Your task to perform on an android device: What's the weather? Image 0: 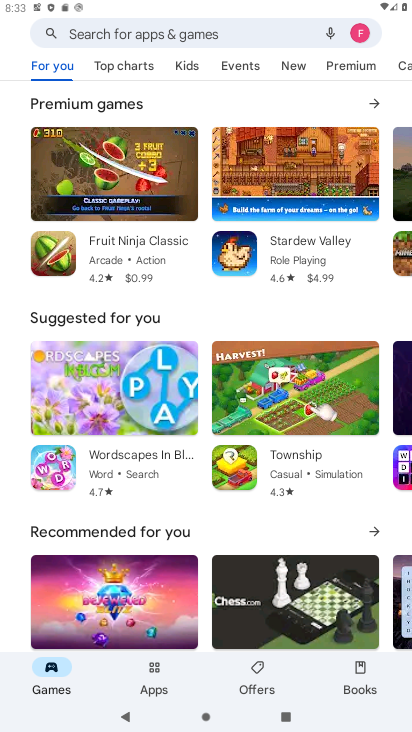
Step 0: press home button
Your task to perform on an android device: What's the weather? Image 1: 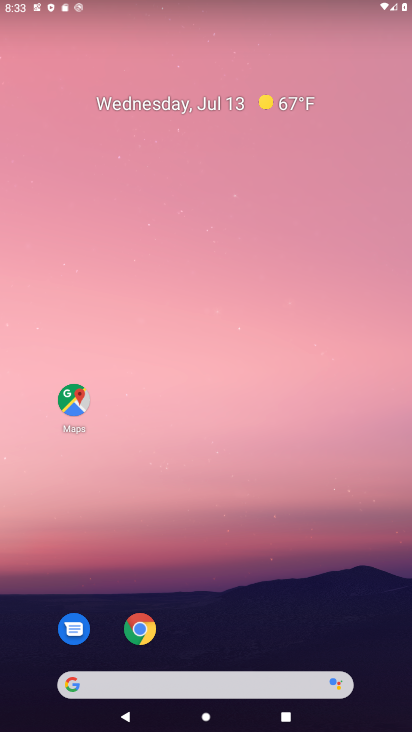
Step 1: click (198, 685)
Your task to perform on an android device: What's the weather? Image 2: 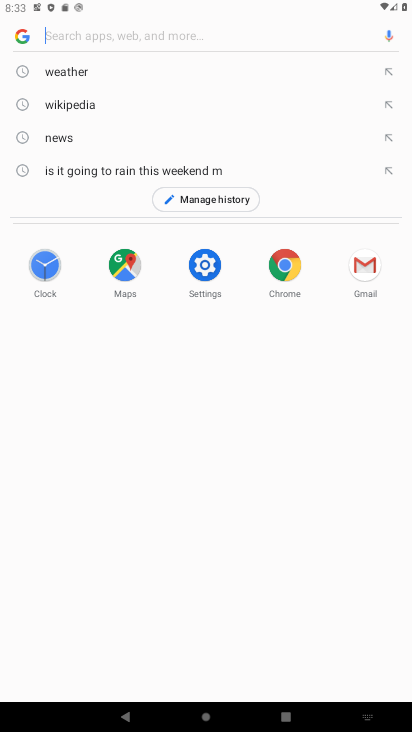
Step 2: click (63, 68)
Your task to perform on an android device: What's the weather? Image 3: 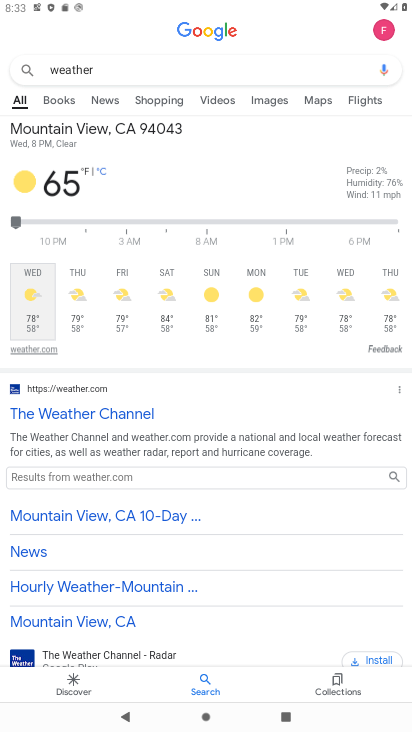
Step 3: task complete